Your task to perform on an android device: turn off notifications settings in the gmail app Image 0: 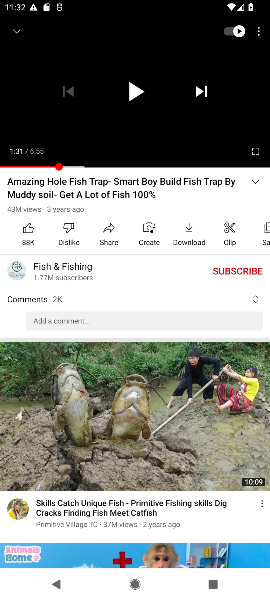
Step 0: press home button
Your task to perform on an android device: turn off notifications settings in the gmail app Image 1: 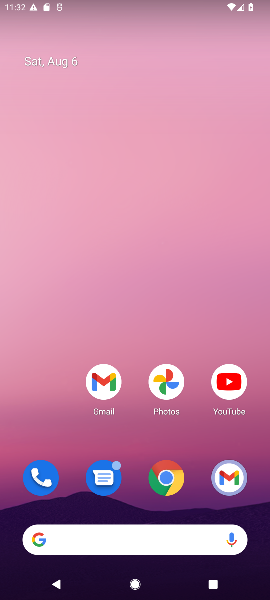
Step 1: drag from (117, 523) to (106, 259)
Your task to perform on an android device: turn off notifications settings in the gmail app Image 2: 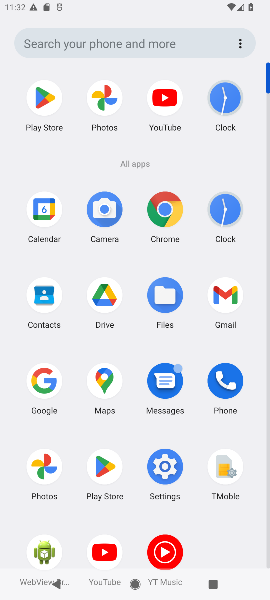
Step 2: click (228, 300)
Your task to perform on an android device: turn off notifications settings in the gmail app Image 3: 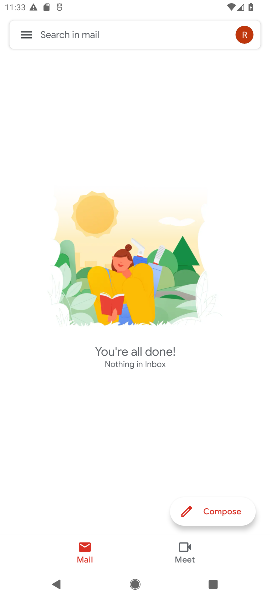
Step 3: click (26, 33)
Your task to perform on an android device: turn off notifications settings in the gmail app Image 4: 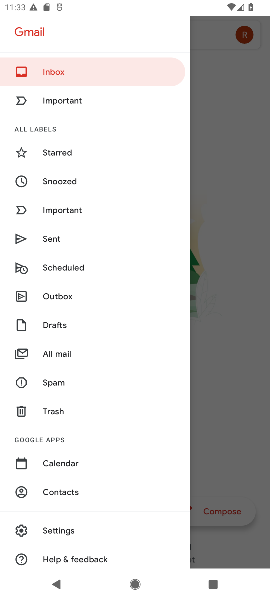
Step 4: click (68, 525)
Your task to perform on an android device: turn off notifications settings in the gmail app Image 5: 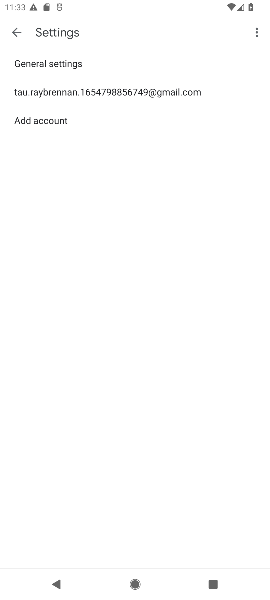
Step 5: click (116, 98)
Your task to perform on an android device: turn off notifications settings in the gmail app Image 6: 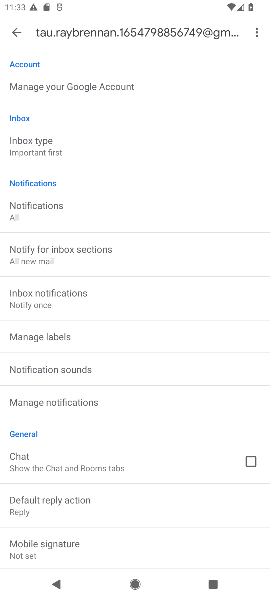
Step 6: click (58, 369)
Your task to perform on an android device: turn off notifications settings in the gmail app Image 7: 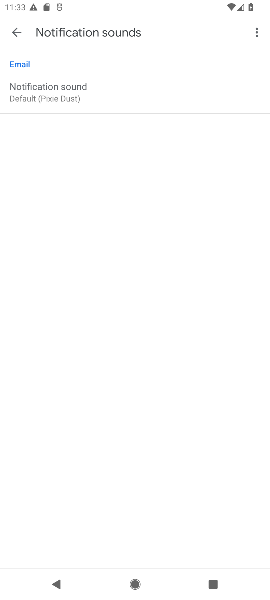
Step 7: click (16, 30)
Your task to perform on an android device: turn off notifications settings in the gmail app Image 8: 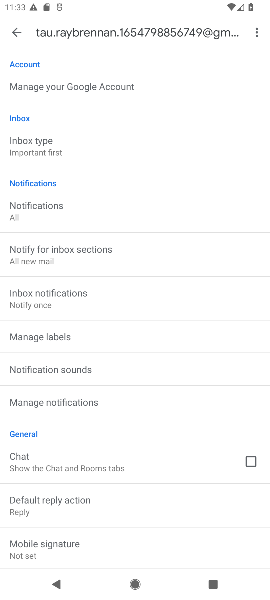
Step 8: click (66, 397)
Your task to perform on an android device: turn off notifications settings in the gmail app Image 9: 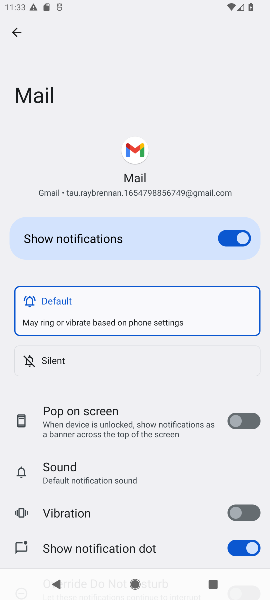
Step 9: click (226, 237)
Your task to perform on an android device: turn off notifications settings in the gmail app Image 10: 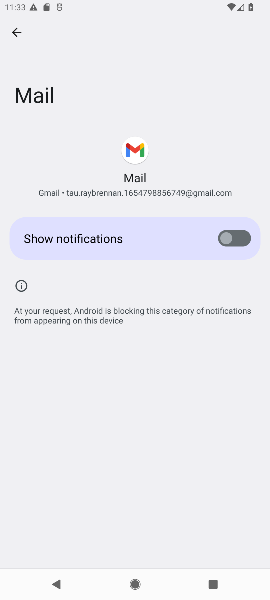
Step 10: task complete